Your task to perform on an android device: open wifi settings Image 0: 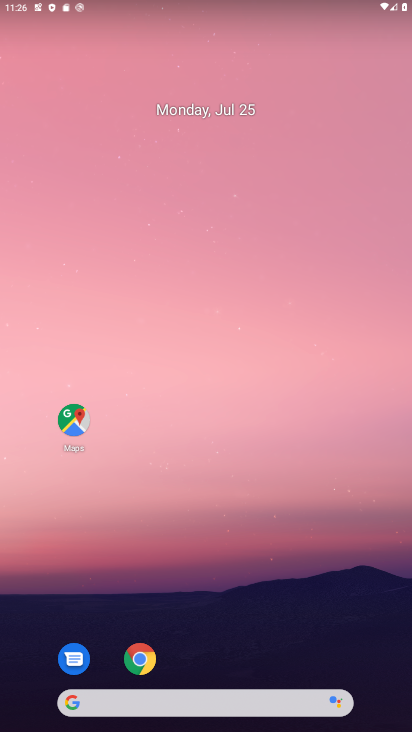
Step 0: drag from (94, 389) to (126, 295)
Your task to perform on an android device: open wifi settings Image 1: 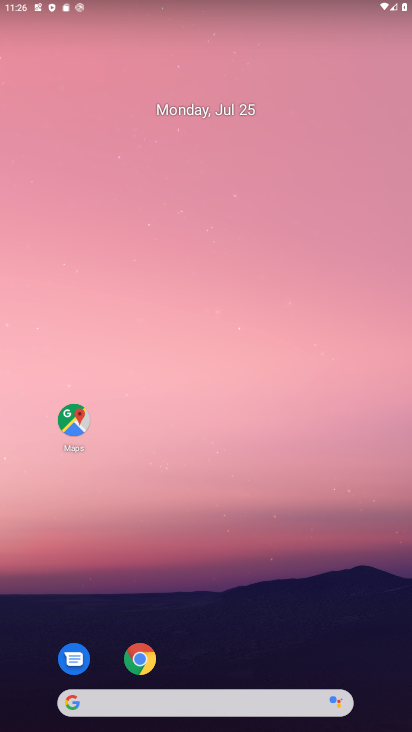
Step 1: drag from (56, 659) to (175, 269)
Your task to perform on an android device: open wifi settings Image 2: 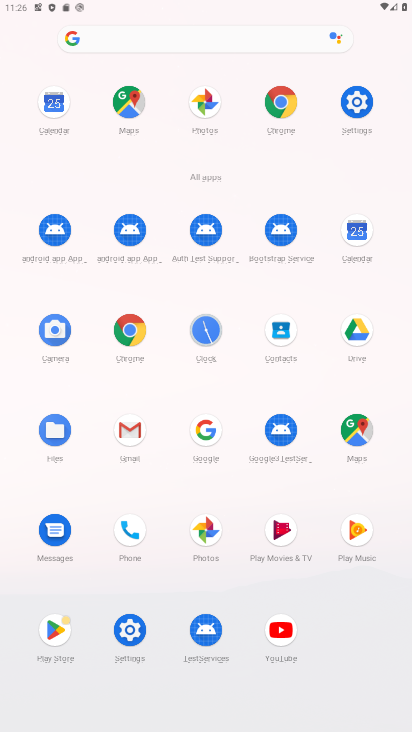
Step 2: click (124, 634)
Your task to perform on an android device: open wifi settings Image 3: 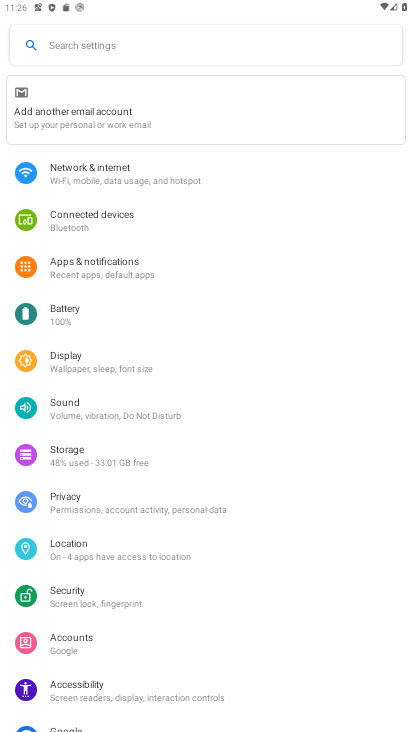
Step 3: click (110, 174)
Your task to perform on an android device: open wifi settings Image 4: 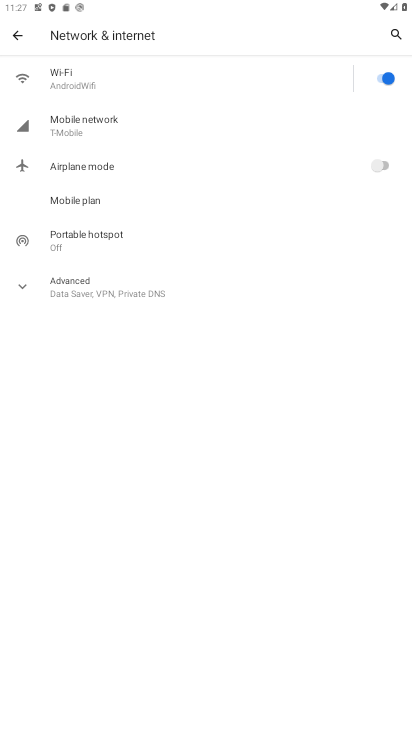
Step 4: click (82, 83)
Your task to perform on an android device: open wifi settings Image 5: 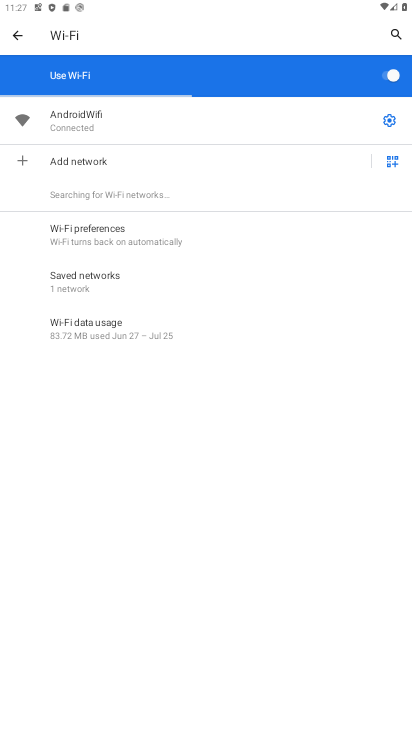
Step 5: task complete